Your task to perform on an android device: turn on location history Image 0: 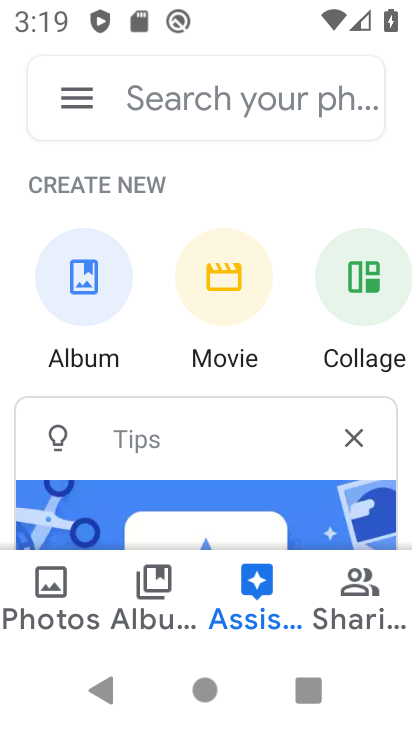
Step 0: press home button
Your task to perform on an android device: turn on location history Image 1: 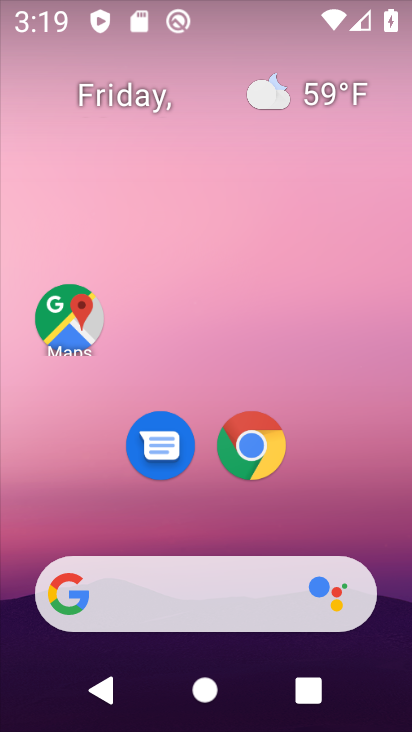
Step 1: drag from (373, 549) to (335, 360)
Your task to perform on an android device: turn on location history Image 2: 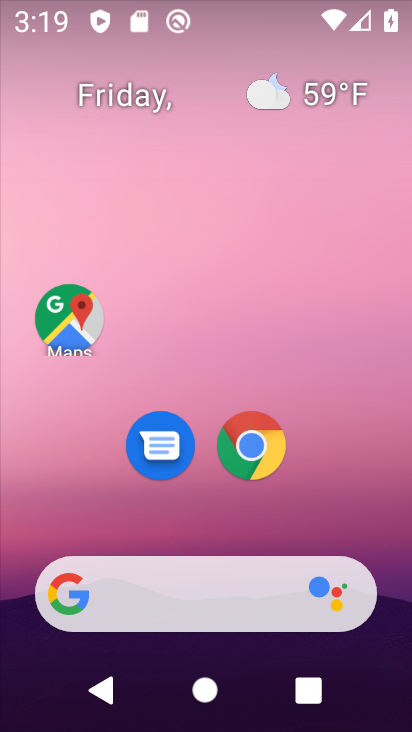
Step 2: click (64, 320)
Your task to perform on an android device: turn on location history Image 3: 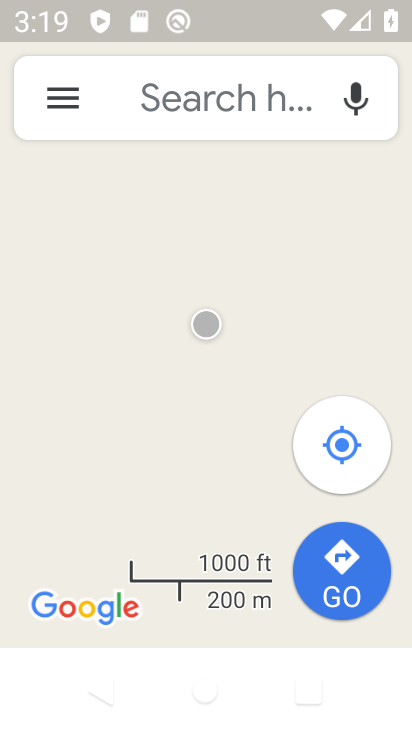
Step 3: click (54, 103)
Your task to perform on an android device: turn on location history Image 4: 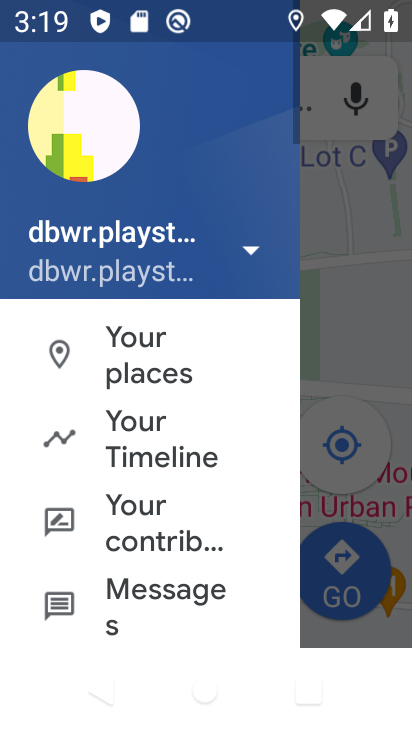
Step 4: click (54, 103)
Your task to perform on an android device: turn on location history Image 5: 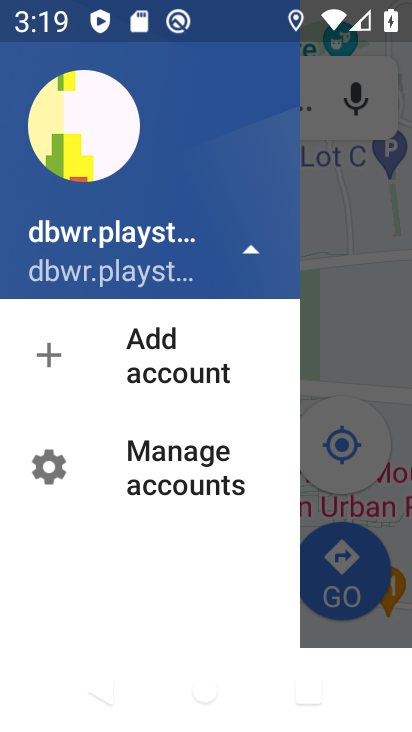
Step 5: click (232, 271)
Your task to perform on an android device: turn on location history Image 6: 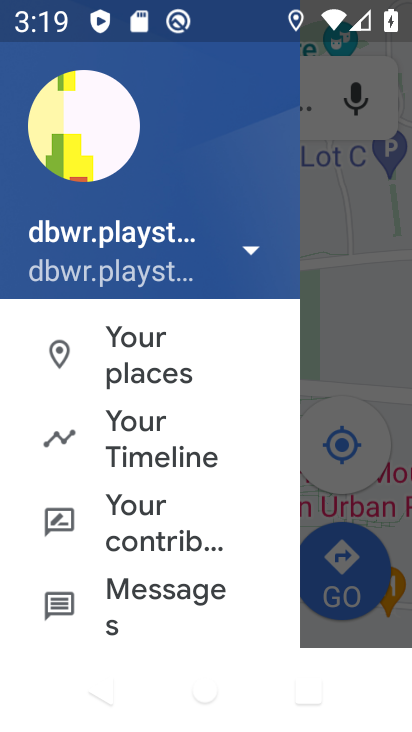
Step 6: drag from (149, 595) to (142, 277)
Your task to perform on an android device: turn on location history Image 7: 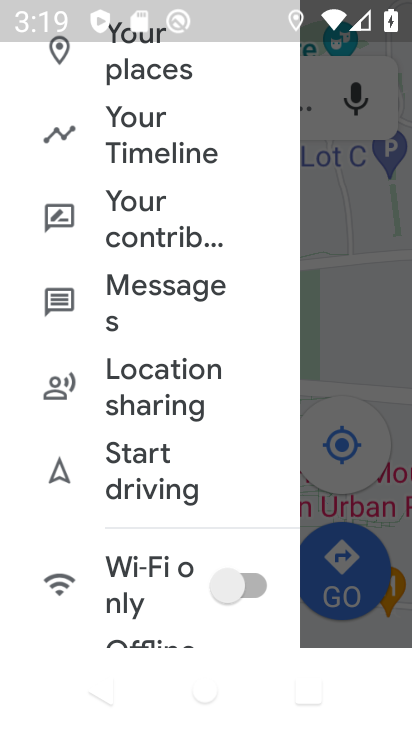
Step 7: drag from (139, 565) to (148, 319)
Your task to perform on an android device: turn on location history Image 8: 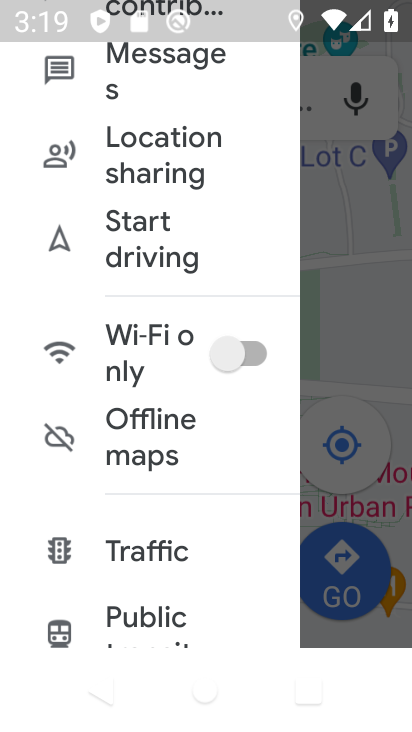
Step 8: drag from (149, 576) to (140, 241)
Your task to perform on an android device: turn on location history Image 9: 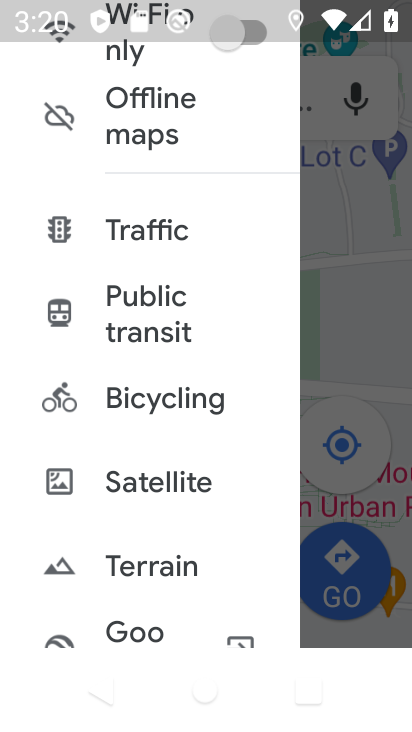
Step 9: drag from (136, 547) to (127, 212)
Your task to perform on an android device: turn on location history Image 10: 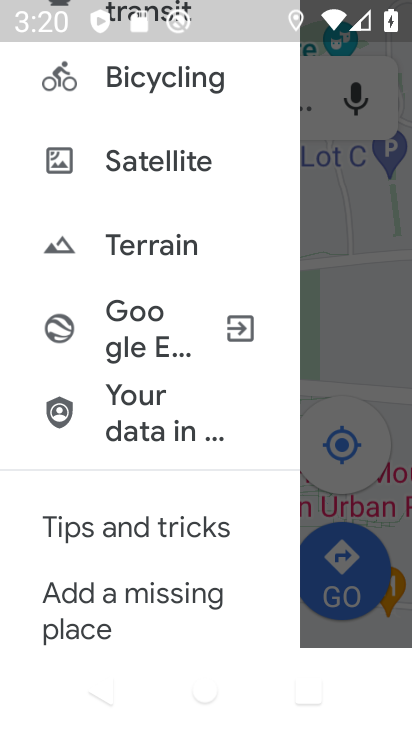
Step 10: drag from (142, 502) to (145, 124)
Your task to perform on an android device: turn on location history Image 11: 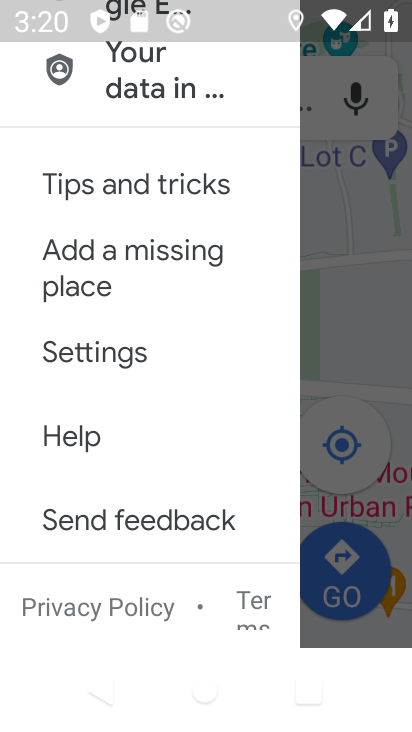
Step 11: click (73, 358)
Your task to perform on an android device: turn on location history Image 12: 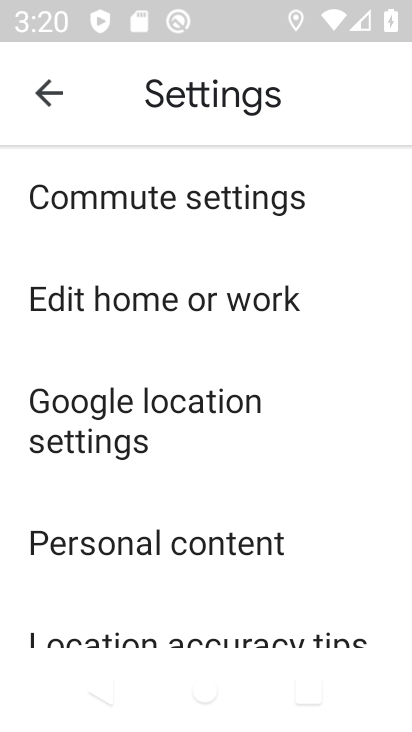
Step 12: click (174, 555)
Your task to perform on an android device: turn on location history Image 13: 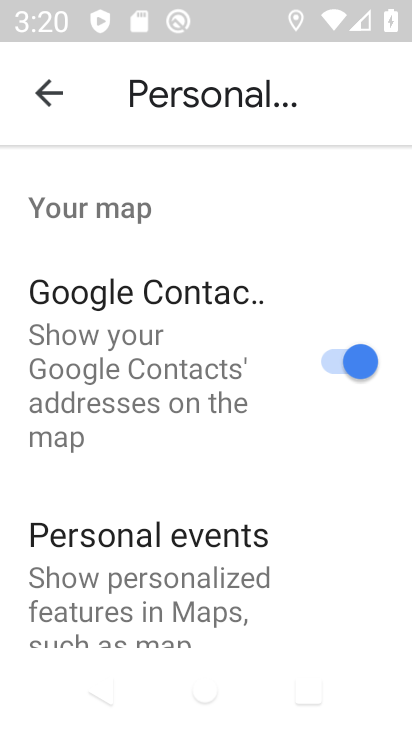
Step 13: drag from (206, 608) to (184, 334)
Your task to perform on an android device: turn on location history Image 14: 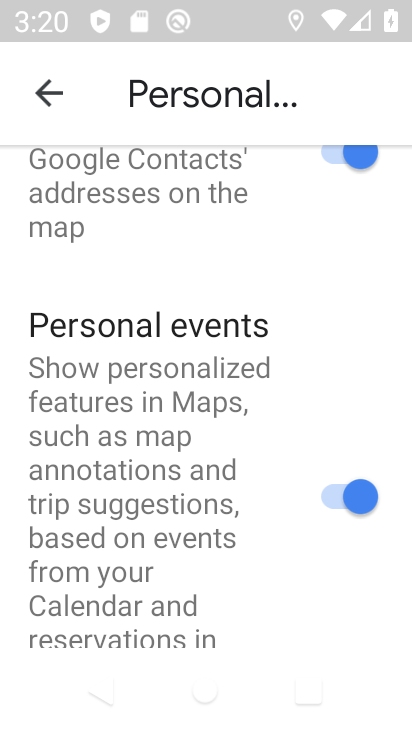
Step 14: drag from (199, 577) to (161, 111)
Your task to perform on an android device: turn on location history Image 15: 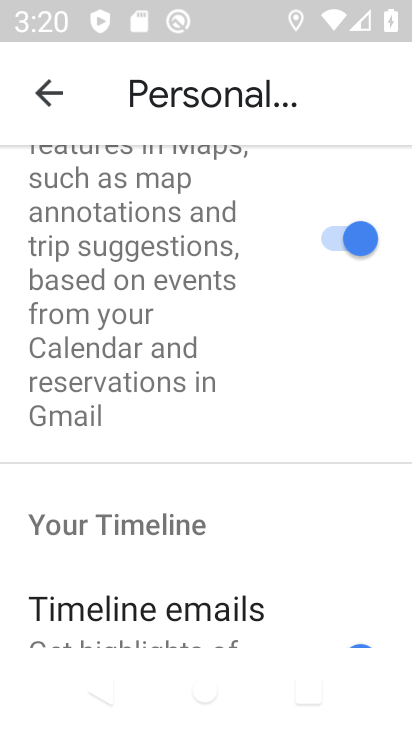
Step 15: drag from (187, 592) to (169, 156)
Your task to perform on an android device: turn on location history Image 16: 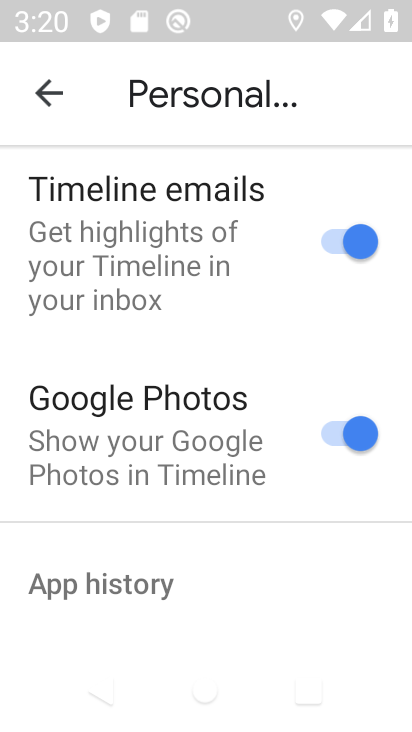
Step 16: drag from (191, 544) to (221, 35)
Your task to perform on an android device: turn on location history Image 17: 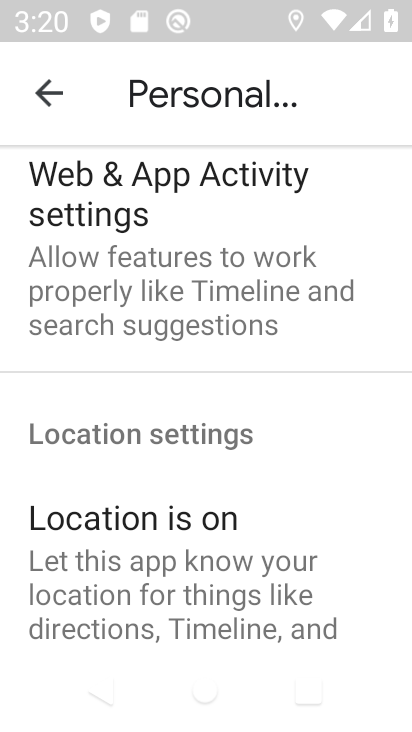
Step 17: drag from (211, 598) to (216, 58)
Your task to perform on an android device: turn on location history Image 18: 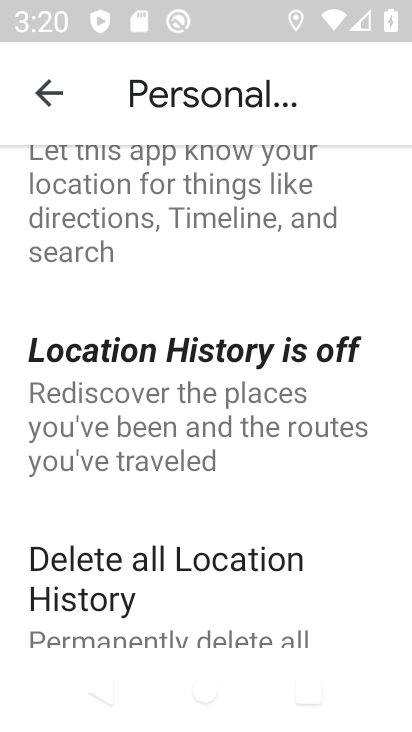
Step 18: click (164, 393)
Your task to perform on an android device: turn on location history Image 19: 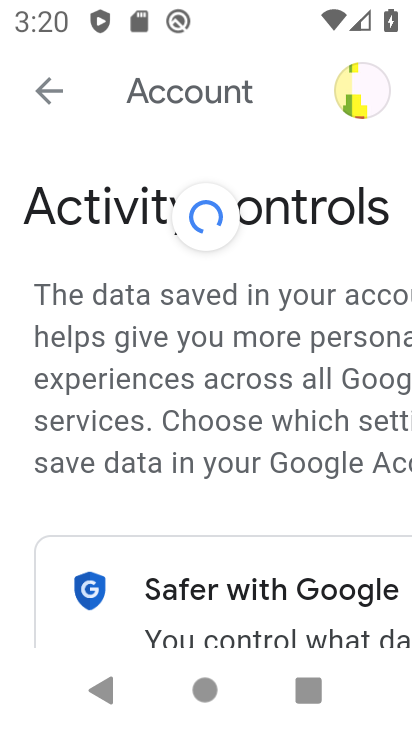
Step 19: task complete